Your task to perform on an android device: Open my contact list Image 0: 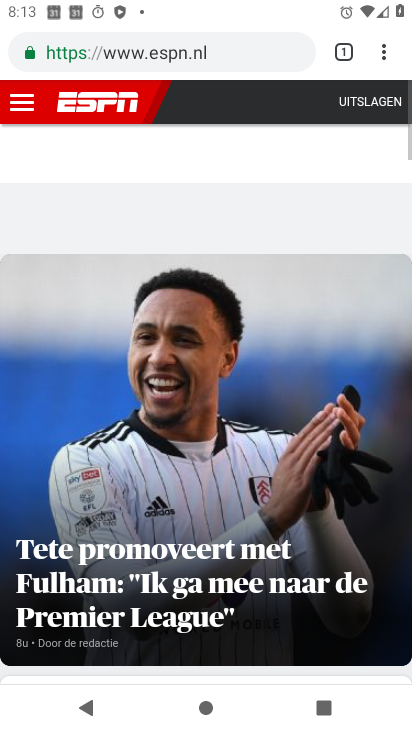
Step 0: press home button
Your task to perform on an android device: Open my contact list Image 1: 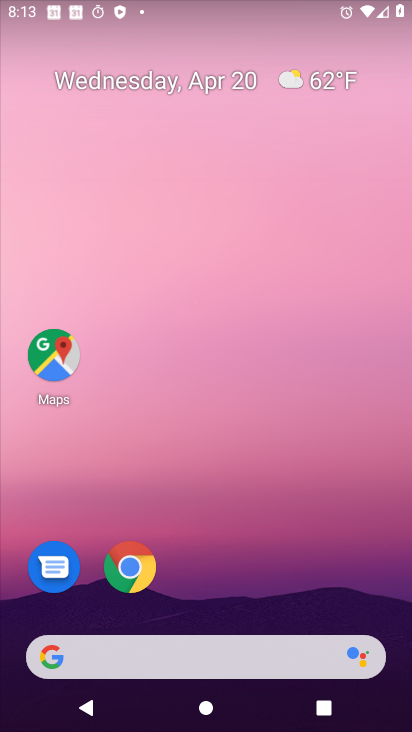
Step 1: drag from (362, 593) to (351, 8)
Your task to perform on an android device: Open my contact list Image 2: 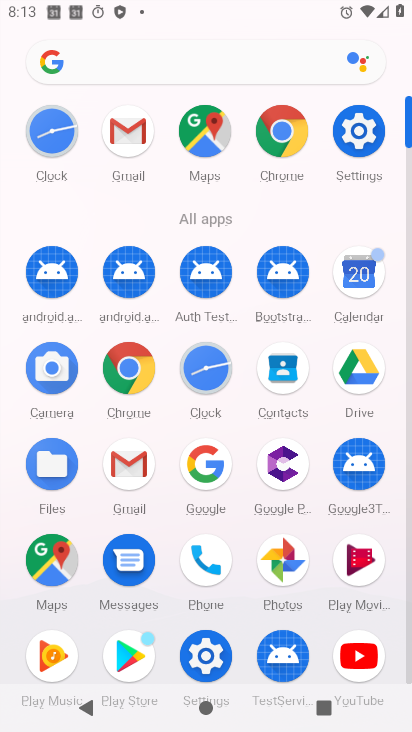
Step 2: click (275, 372)
Your task to perform on an android device: Open my contact list Image 3: 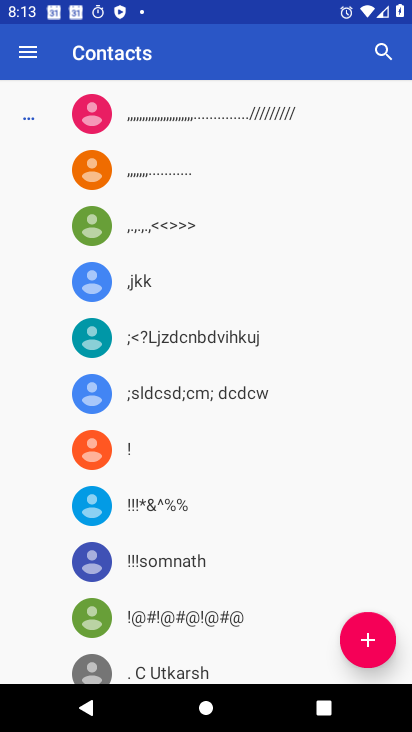
Step 3: task complete